Your task to perform on an android device: toggle priority inbox in the gmail app Image 0: 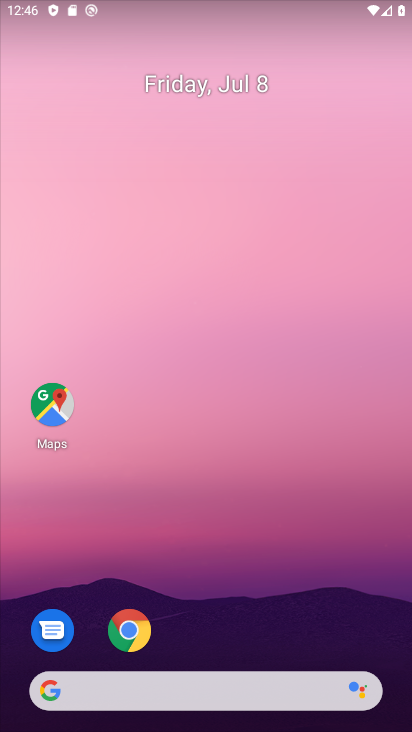
Step 0: drag from (371, 682) to (407, 199)
Your task to perform on an android device: toggle priority inbox in the gmail app Image 1: 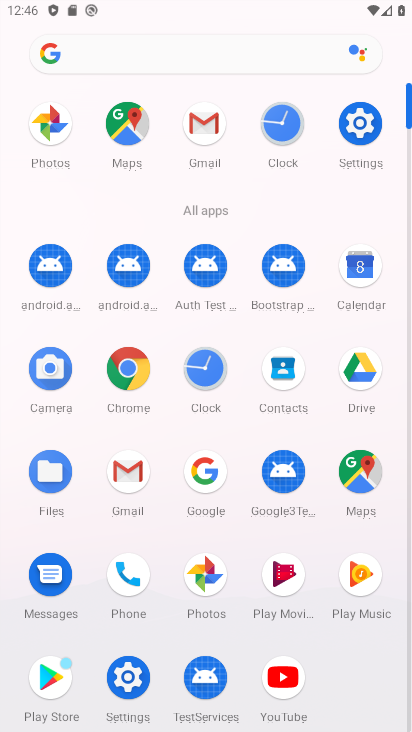
Step 1: click (124, 478)
Your task to perform on an android device: toggle priority inbox in the gmail app Image 2: 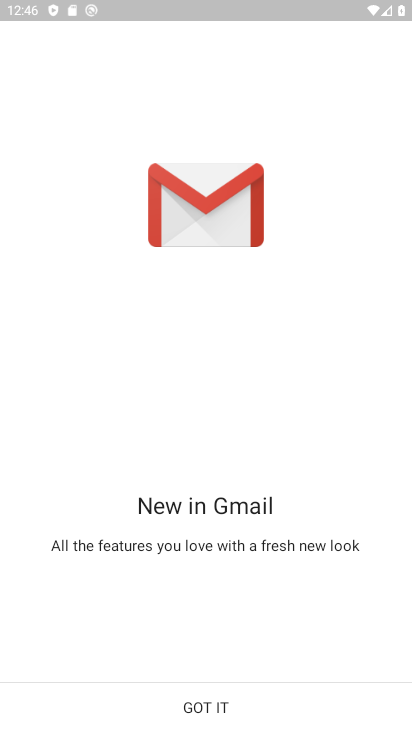
Step 2: click (211, 706)
Your task to perform on an android device: toggle priority inbox in the gmail app Image 3: 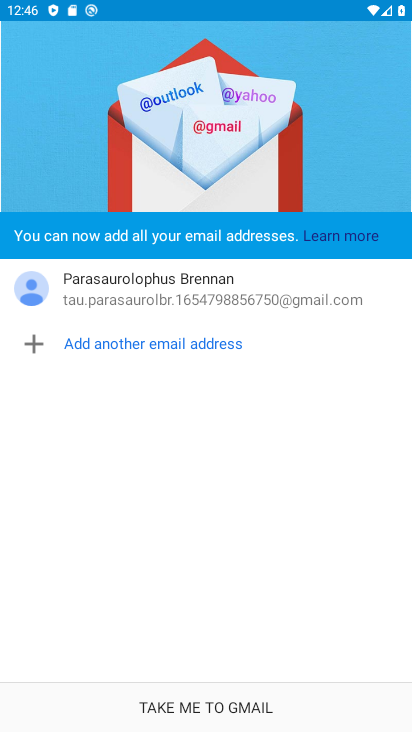
Step 3: click (211, 706)
Your task to perform on an android device: toggle priority inbox in the gmail app Image 4: 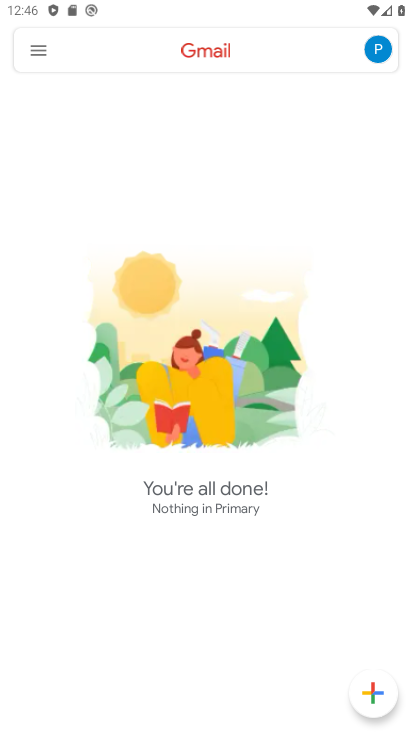
Step 4: click (24, 52)
Your task to perform on an android device: toggle priority inbox in the gmail app Image 5: 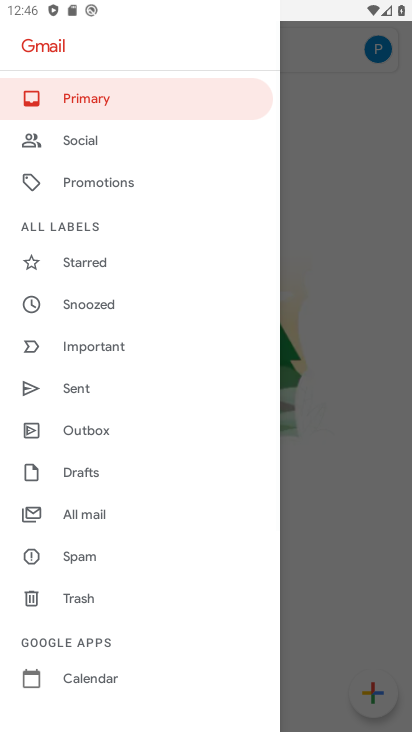
Step 5: drag from (109, 664) to (176, 283)
Your task to perform on an android device: toggle priority inbox in the gmail app Image 6: 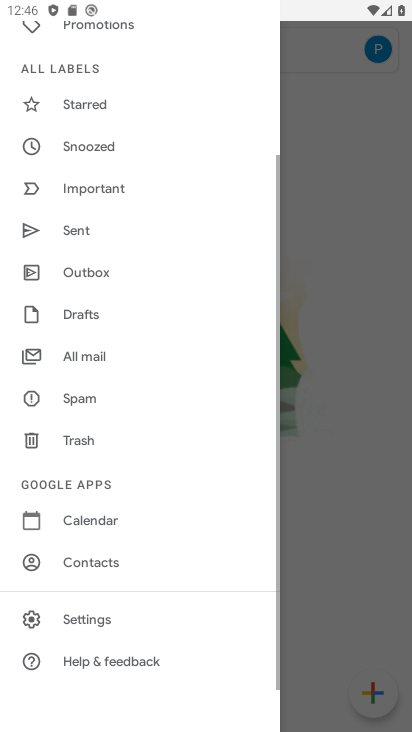
Step 6: click (125, 622)
Your task to perform on an android device: toggle priority inbox in the gmail app Image 7: 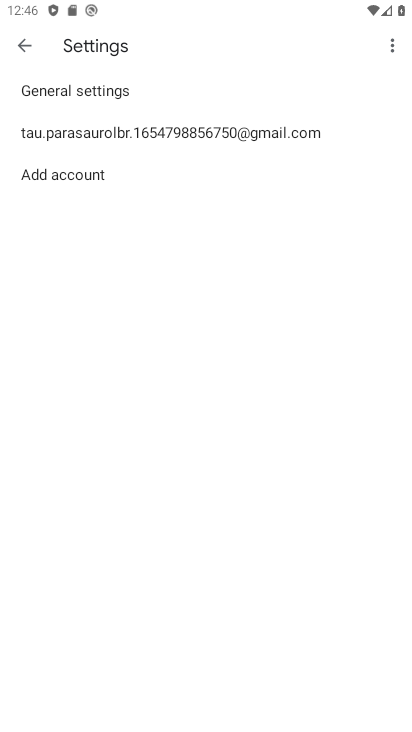
Step 7: click (218, 117)
Your task to perform on an android device: toggle priority inbox in the gmail app Image 8: 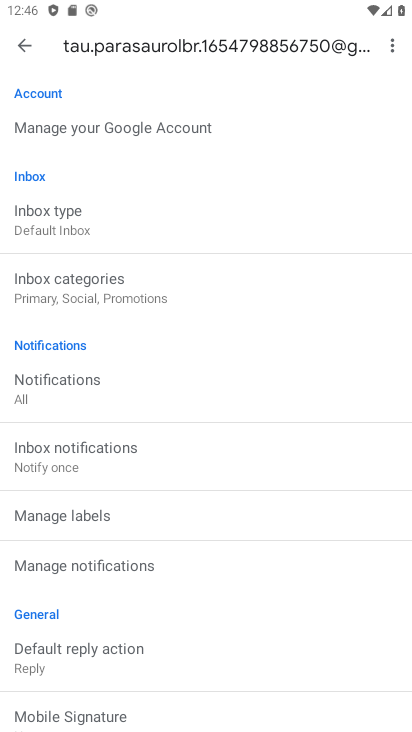
Step 8: click (126, 223)
Your task to perform on an android device: toggle priority inbox in the gmail app Image 9: 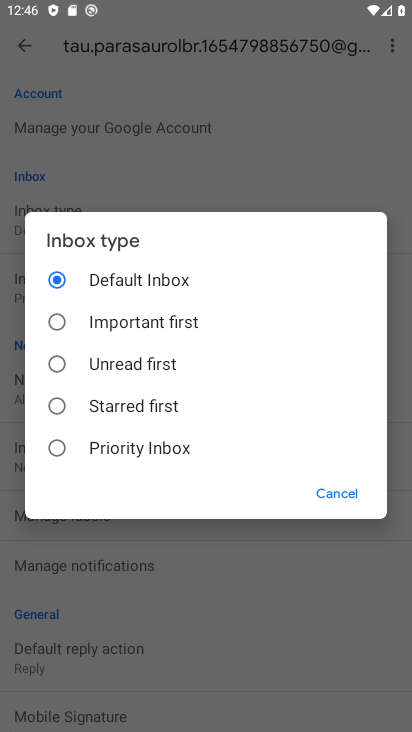
Step 9: click (121, 449)
Your task to perform on an android device: toggle priority inbox in the gmail app Image 10: 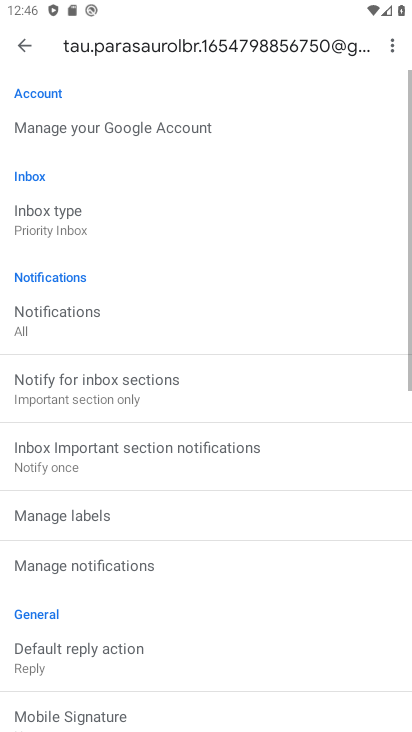
Step 10: task complete